Your task to perform on an android device: set default search engine in the chrome app Image 0: 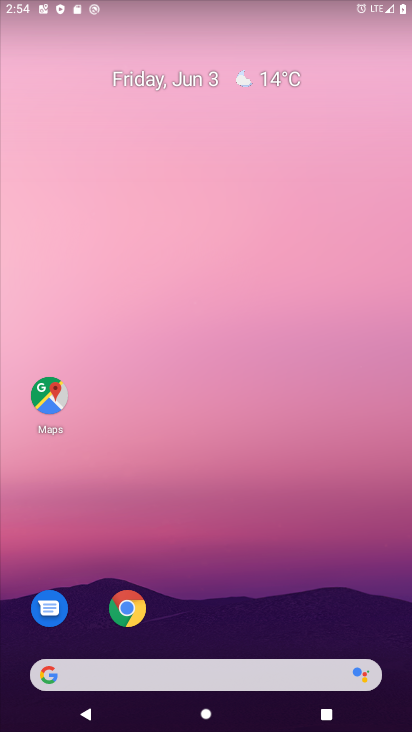
Step 0: click (126, 617)
Your task to perform on an android device: set default search engine in the chrome app Image 1: 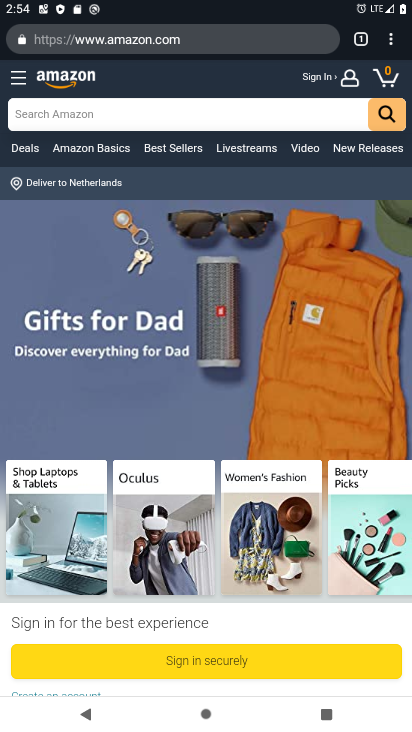
Step 1: click (388, 41)
Your task to perform on an android device: set default search engine in the chrome app Image 2: 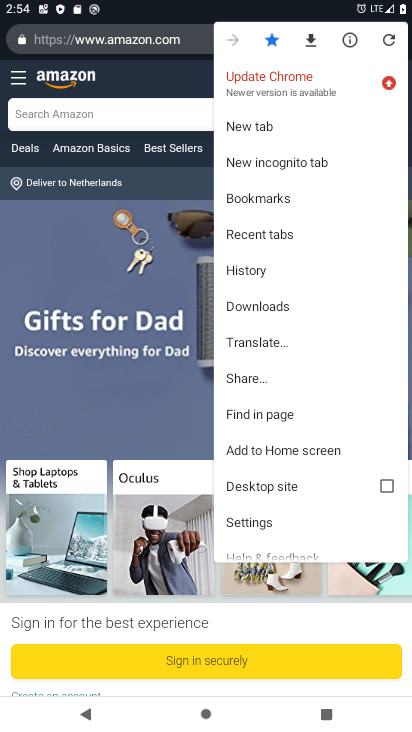
Step 2: click (256, 529)
Your task to perform on an android device: set default search engine in the chrome app Image 3: 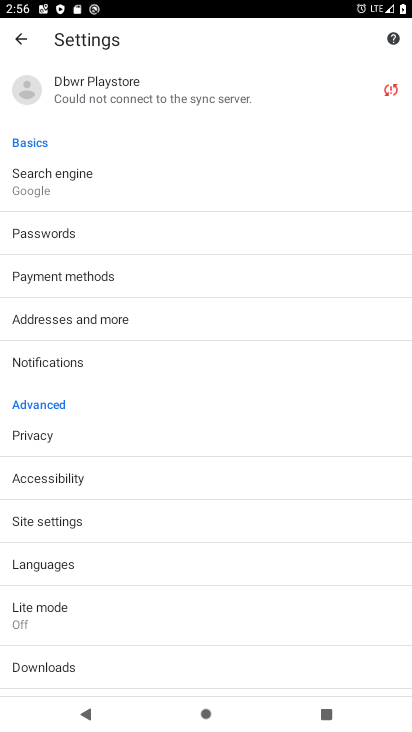
Step 3: click (92, 163)
Your task to perform on an android device: set default search engine in the chrome app Image 4: 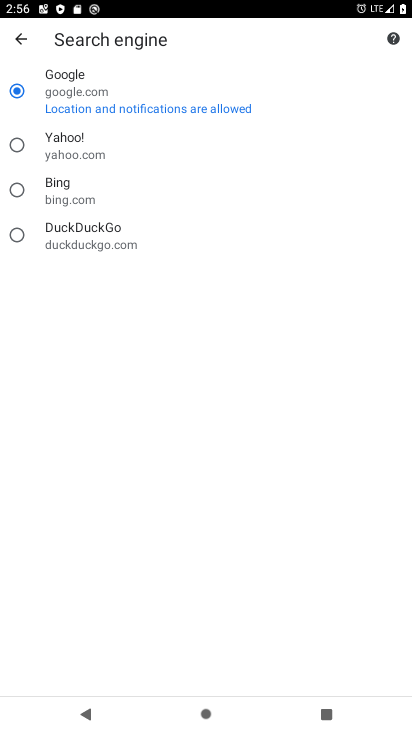
Step 4: click (63, 161)
Your task to perform on an android device: set default search engine in the chrome app Image 5: 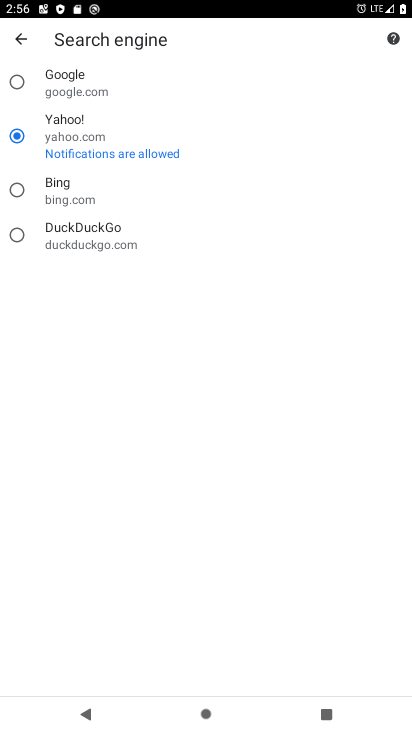
Step 5: task complete